Your task to perform on an android device: Open the stopwatch Image 0: 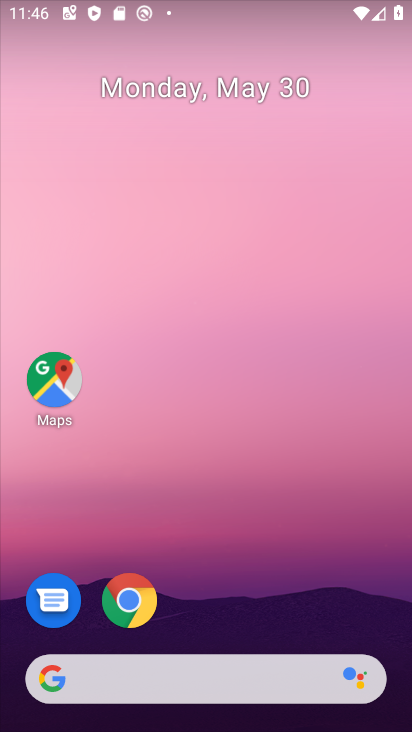
Step 0: drag from (196, 724) to (203, 51)
Your task to perform on an android device: Open the stopwatch Image 1: 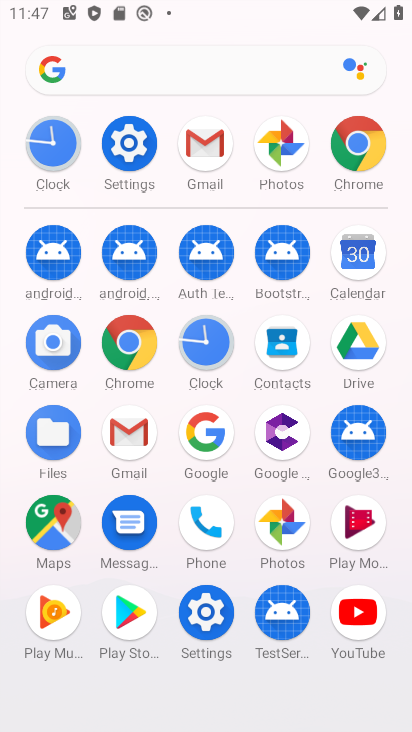
Step 1: click (204, 345)
Your task to perform on an android device: Open the stopwatch Image 2: 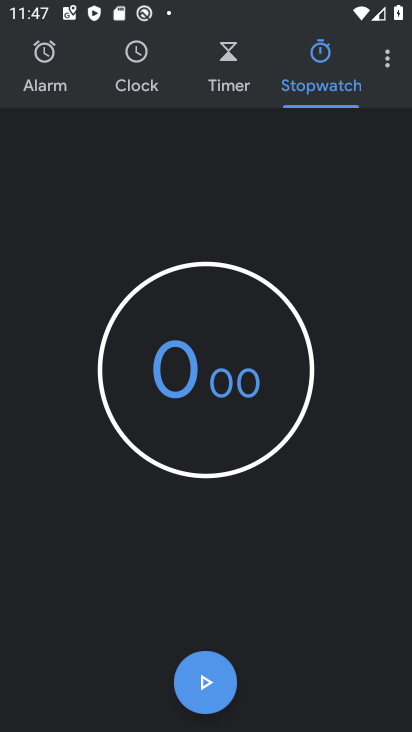
Step 2: task complete